Your task to perform on an android device: Search for vegetarian restaurants on Maps Image 0: 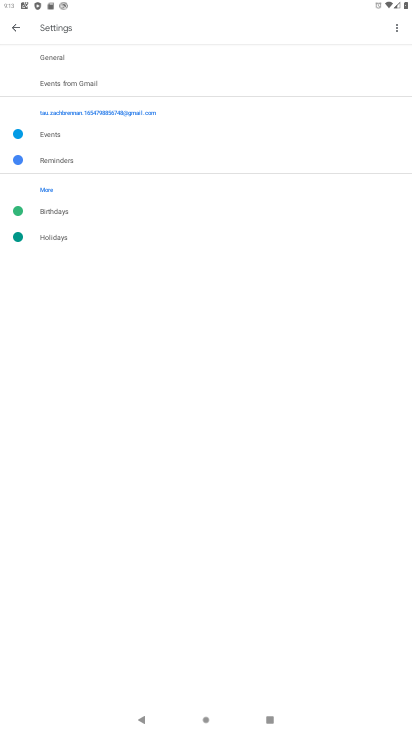
Step 0: press home button
Your task to perform on an android device: Search for vegetarian restaurants on Maps Image 1: 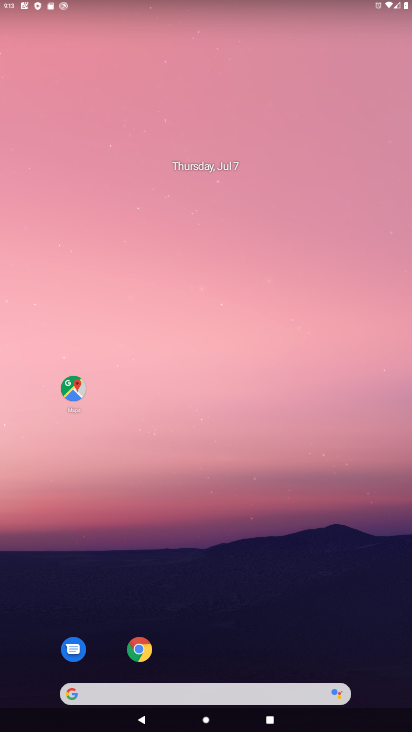
Step 1: drag from (271, 651) to (298, 95)
Your task to perform on an android device: Search for vegetarian restaurants on Maps Image 2: 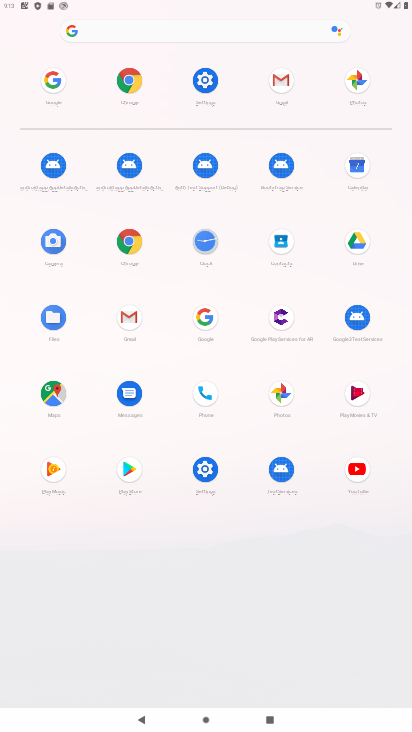
Step 2: click (57, 393)
Your task to perform on an android device: Search for vegetarian restaurants on Maps Image 3: 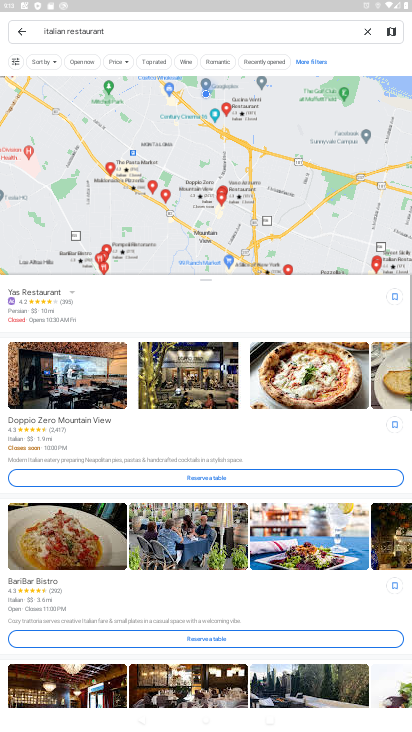
Step 3: press back button
Your task to perform on an android device: Search for vegetarian restaurants on Maps Image 4: 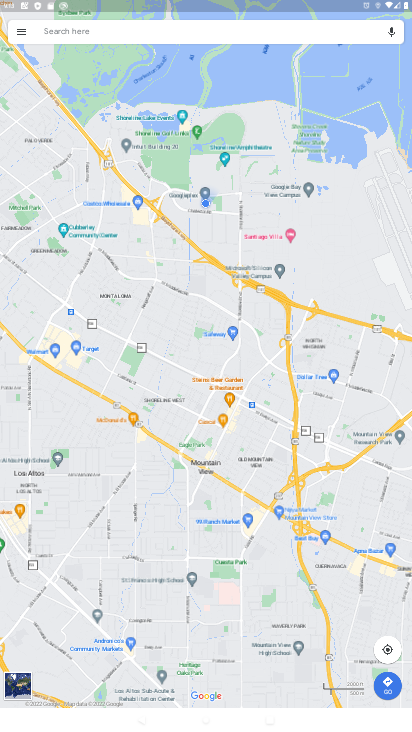
Step 4: click (306, 29)
Your task to perform on an android device: Search for vegetarian restaurants on Maps Image 5: 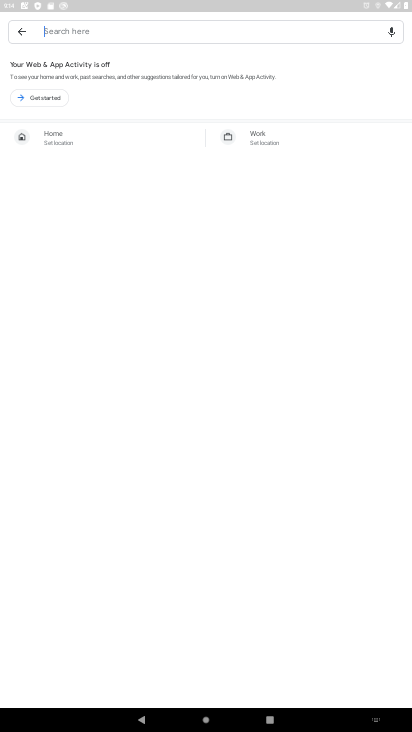
Step 5: type "vegetarian restaurant"
Your task to perform on an android device: Search for vegetarian restaurants on Maps Image 6: 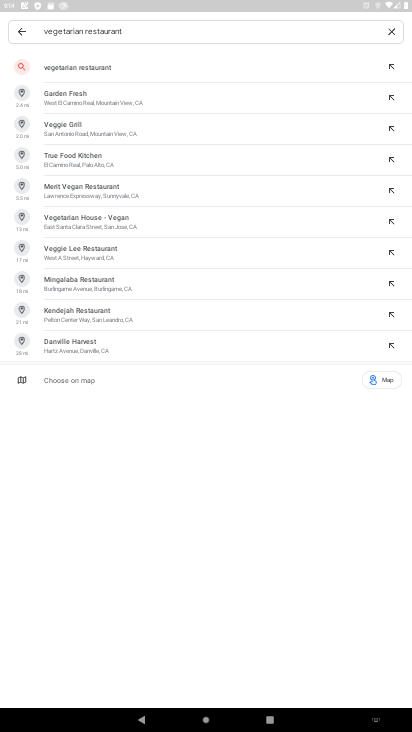
Step 6: click (355, 75)
Your task to perform on an android device: Search for vegetarian restaurants on Maps Image 7: 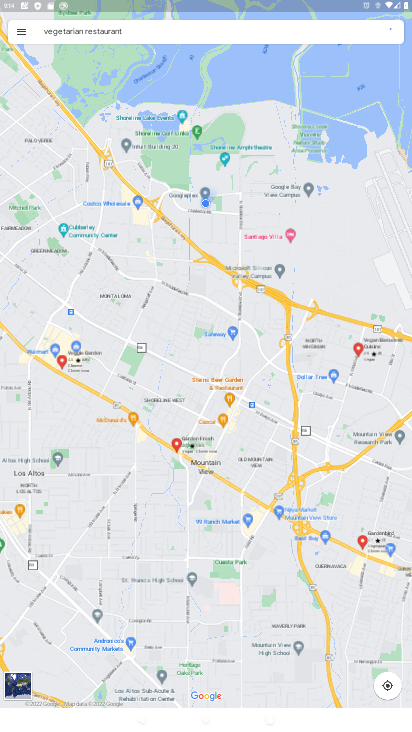
Step 7: task complete